Your task to perform on an android device: What is the news today? Image 0: 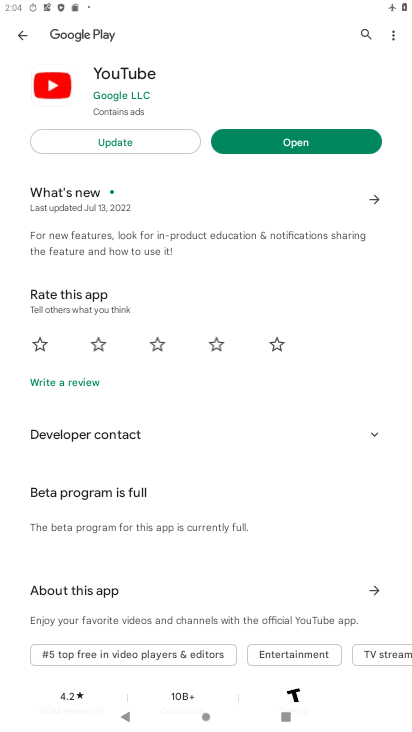
Step 0: press home button
Your task to perform on an android device: What is the news today? Image 1: 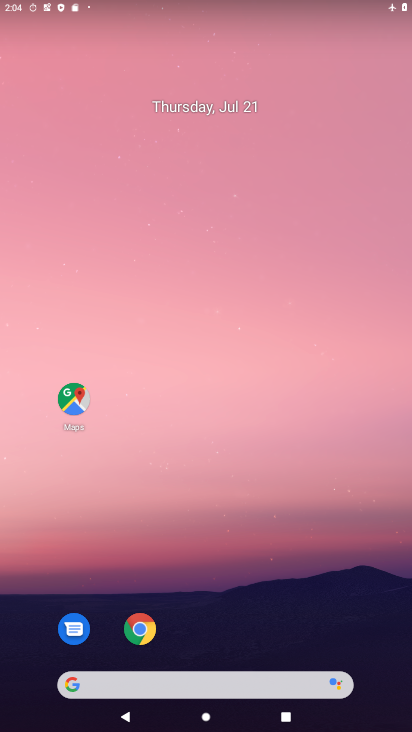
Step 1: click (117, 685)
Your task to perform on an android device: What is the news today? Image 2: 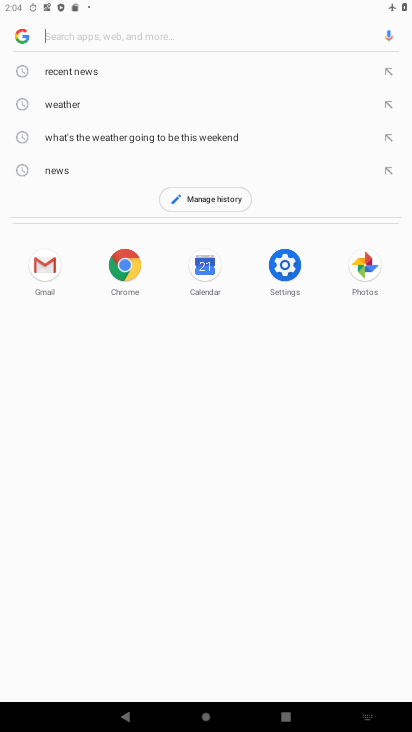
Step 2: type "What is the news today?"
Your task to perform on an android device: What is the news today? Image 3: 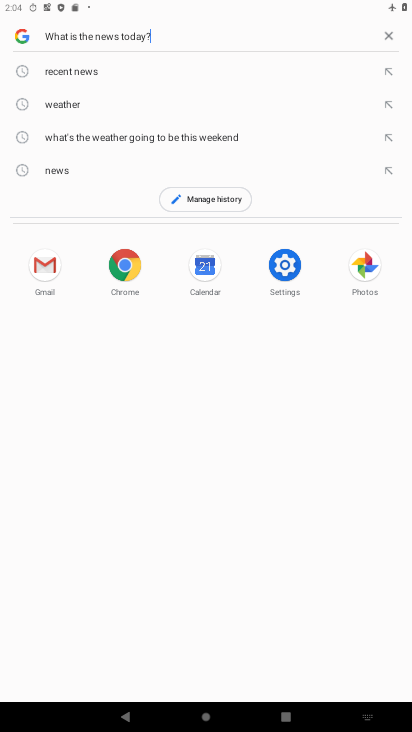
Step 3: type ""
Your task to perform on an android device: What is the news today? Image 4: 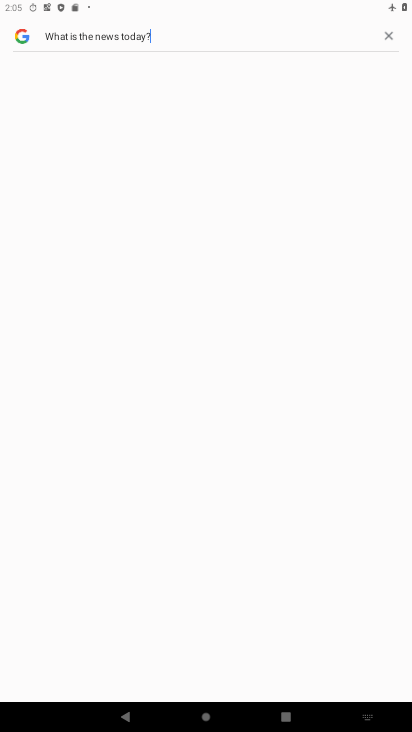
Step 4: drag from (174, 723) to (367, 684)
Your task to perform on an android device: What is the news today? Image 5: 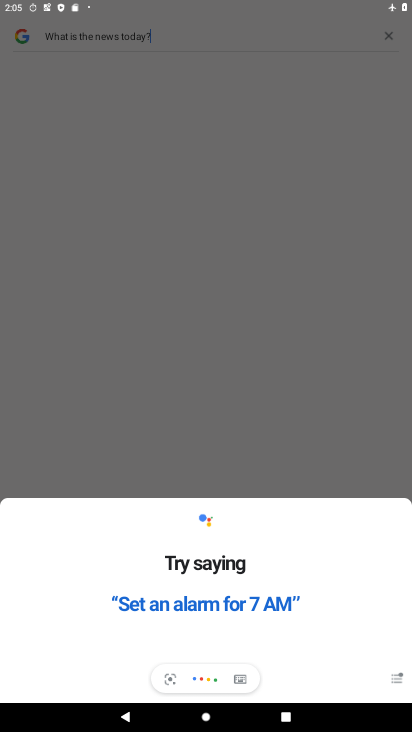
Step 5: press home button
Your task to perform on an android device: What is the news today? Image 6: 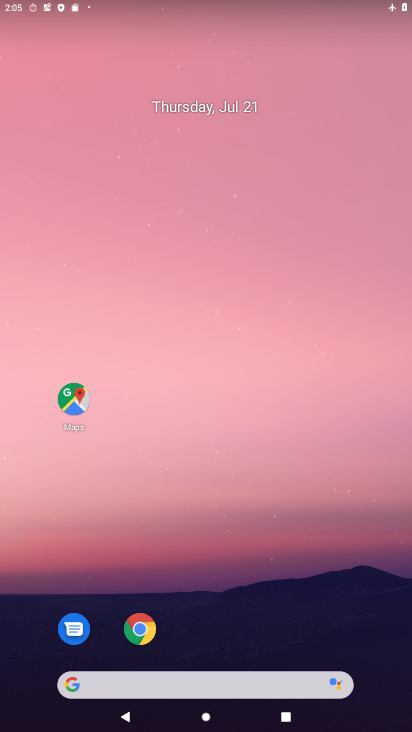
Step 6: drag from (251, 20) to (236, 534)
Your task to perform on an android device: What is the news today? Image 7: 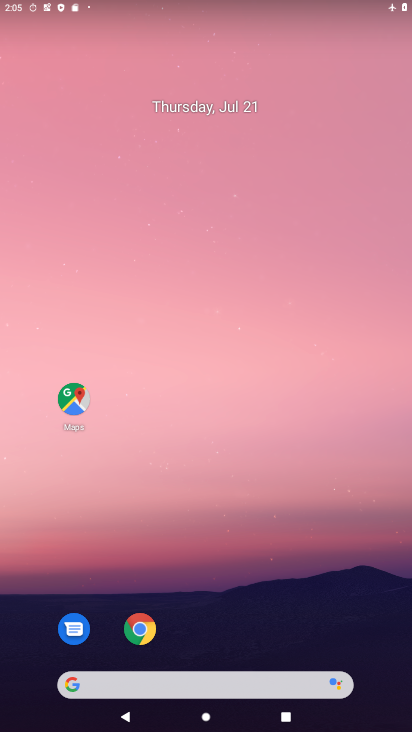
Step 7: drag from (253, 0) to (262, 570)
Your task to perform on an android device: What is the news today? Image 8: 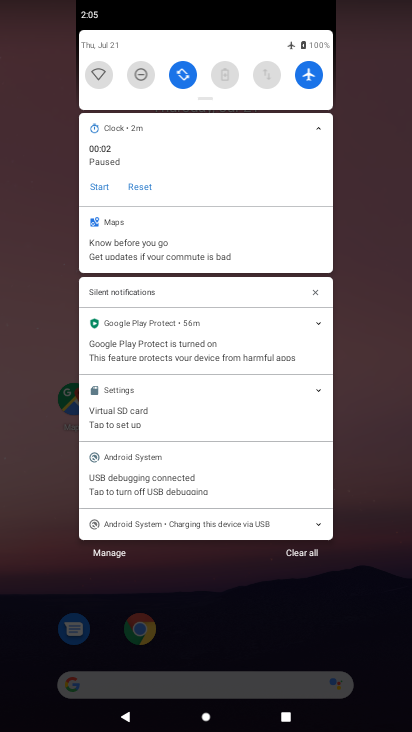
Step 8: click (316, 70)
Your task to perform on an android device: What is the news today? Image 9: 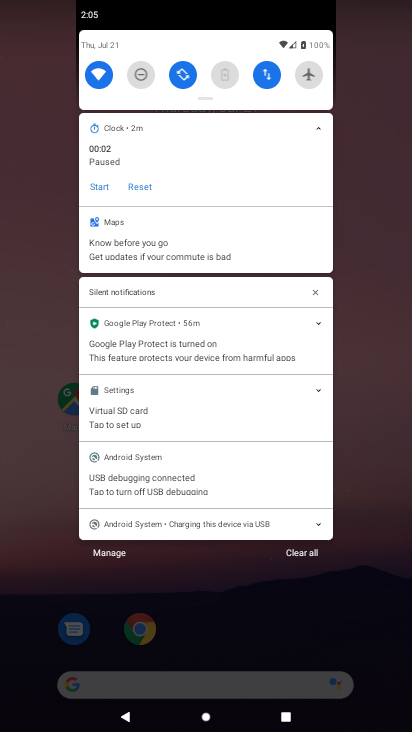
Step 9: click (290, 551)
Your task to perform on an android device: What is the news today? Image 10: 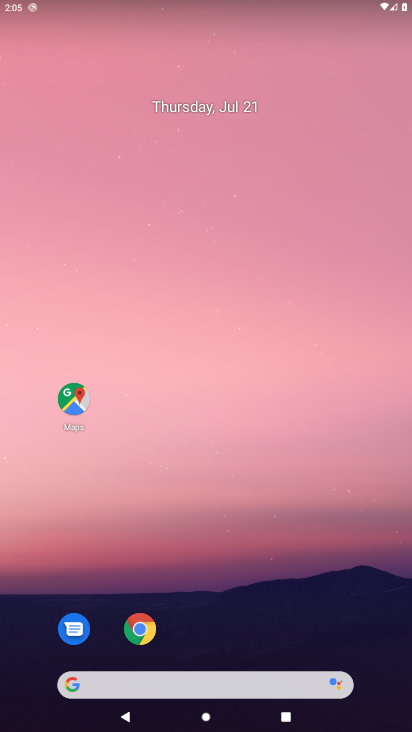
Step 10: task complete